Your task to perform on an android device: Go to accessibility settings Image 0: 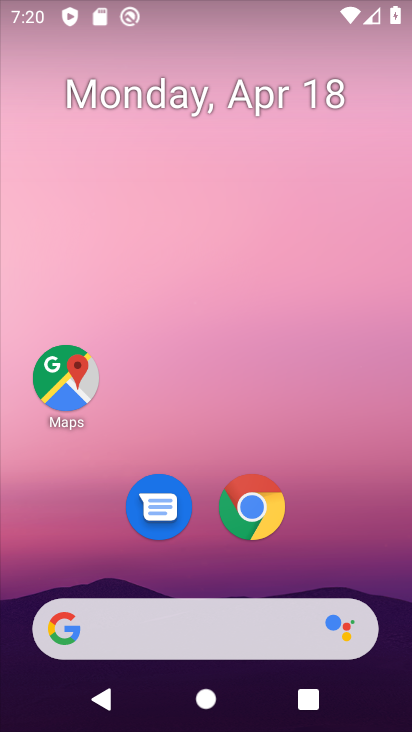
Step 0: drag from (2, 560) to (104, 10)
Your task to perform on an android device: Go to accessibility settings Image 1: 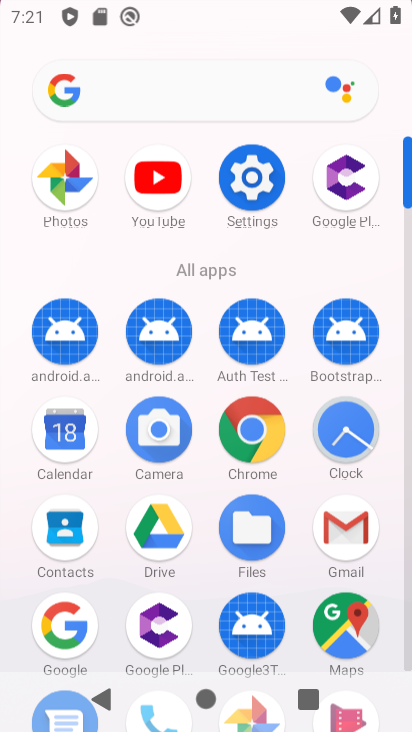
Step 1: click (238, 176)
Your task to perform on an android device: Go to accessibility settings Image 2: 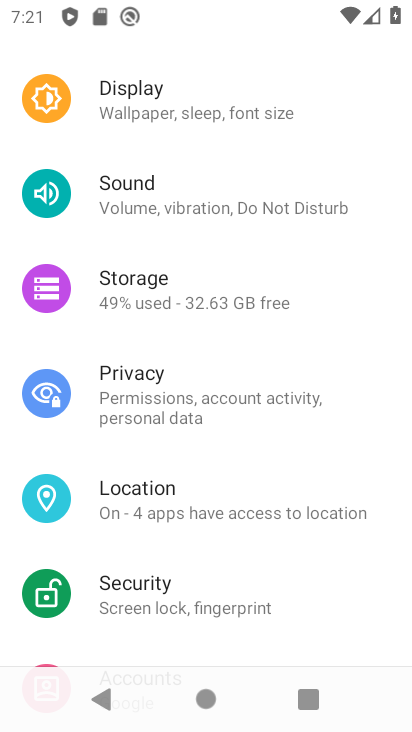
Step 2: drag from (198, 569) to (248, 191)
Your task to perform on an android device: Go to accessibility settings Image 3: 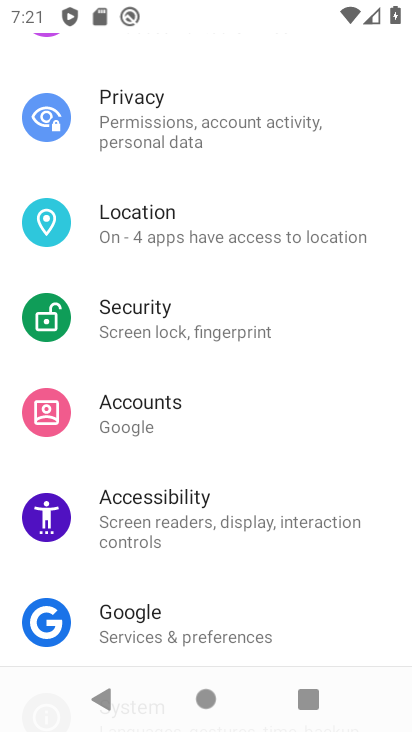
Step 3: click (218, 492)
Your task to perform on an android device: Go to accessibility settings Image 4: 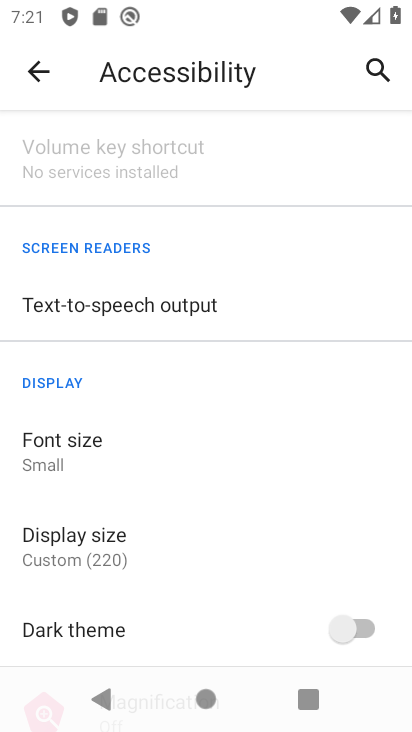
Step 4: task complete